Your task to perform on an android device: snooze an email in the gmail app Image 0: 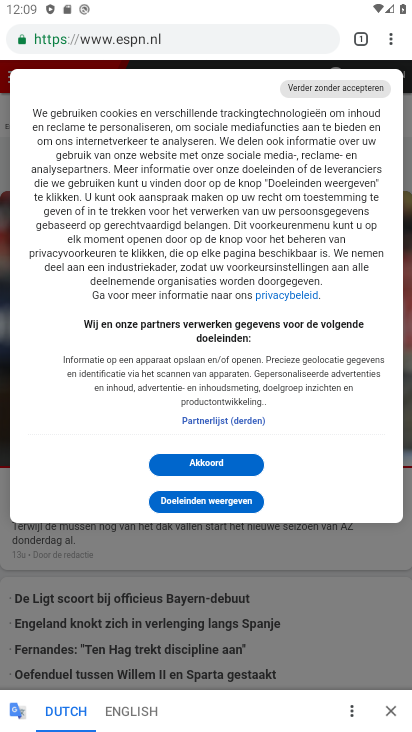
Step 0: press home button
Your task to perform on an android device: snooze an email in the gmail app Image 1: 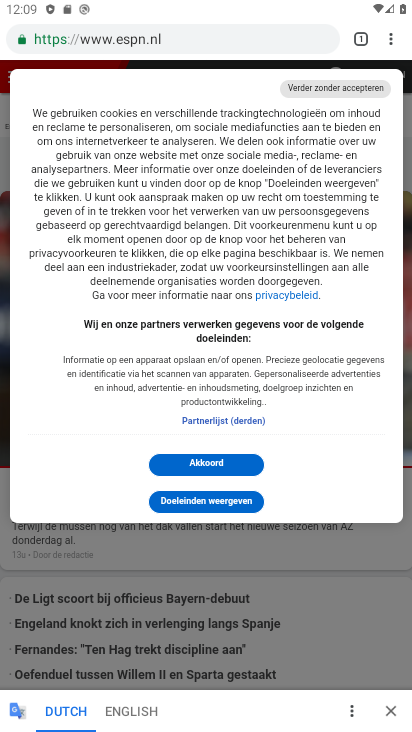
Step 1: press home button
Your task to perform on an android device: snooze an email in the gmail app Image 2: 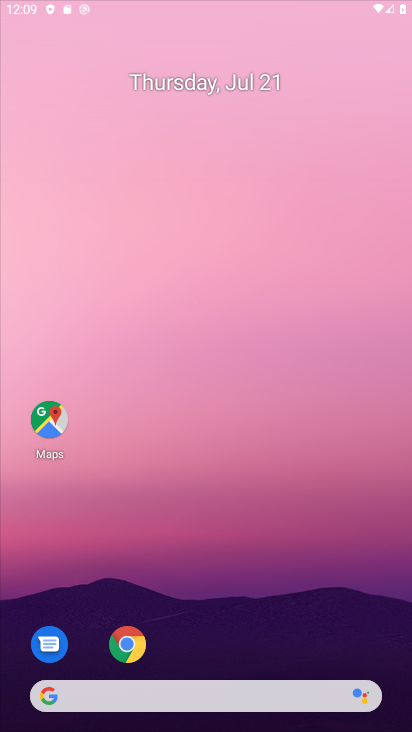
Step 2: press home button
Your task to perform on an android device: snooze an email in the gmail app Image 3: 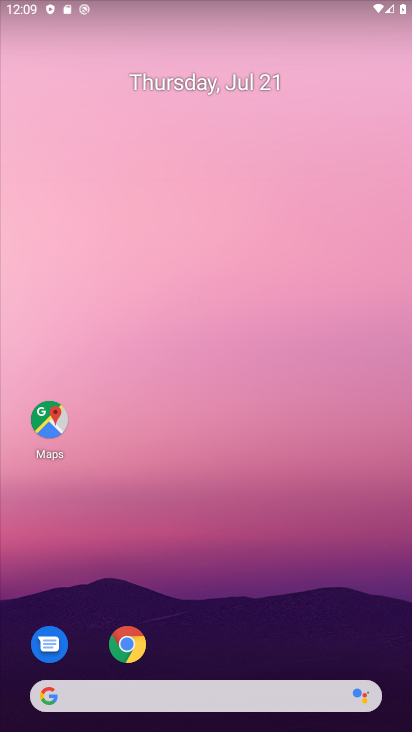
Step 3: press home button
Your task to perform on an android device: snooze an email in the gmail app Image 4: 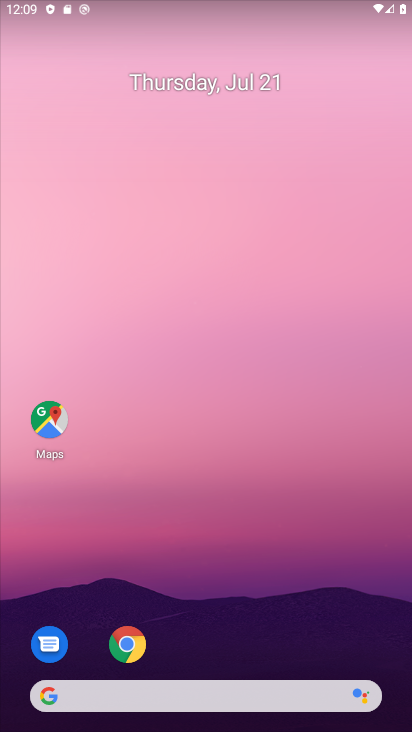
Step 4: drag from (374, 651) to (325, 48)
Your task to perform on an android device: snooze an email in the gmail app Image 5: 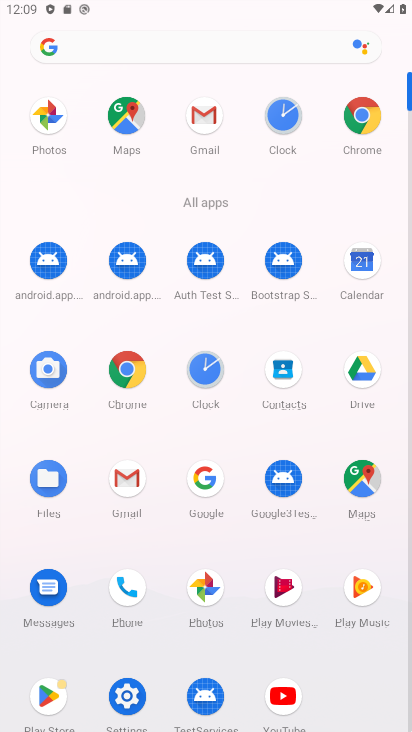
Step 5: click (119, 497)
Your task to perform on an android device: snooze an email in the gmail app Image 6: 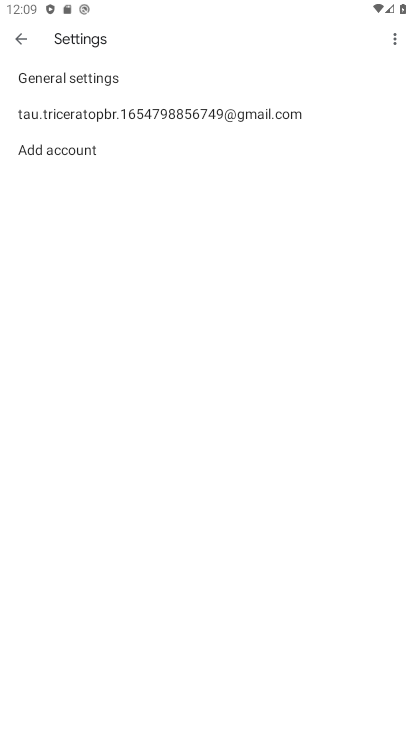
Step 6: click (113, 112)
Your task to perform on an android device: snooze an email in the gmail app Image 7: 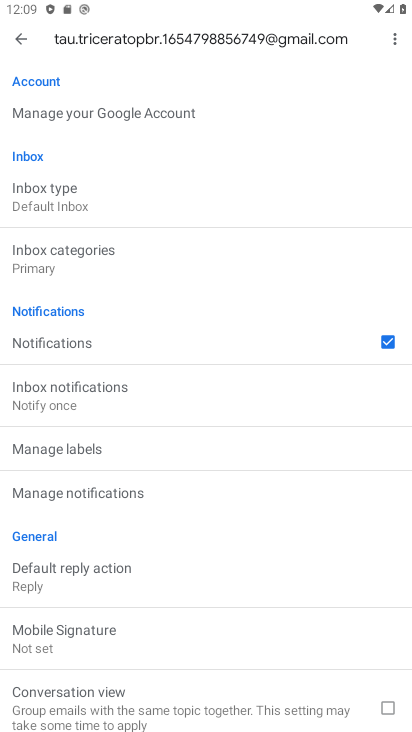
Step 7: click (8, 33)
Your task to perform on an android device: snooze an email in the gmail app Image 8: 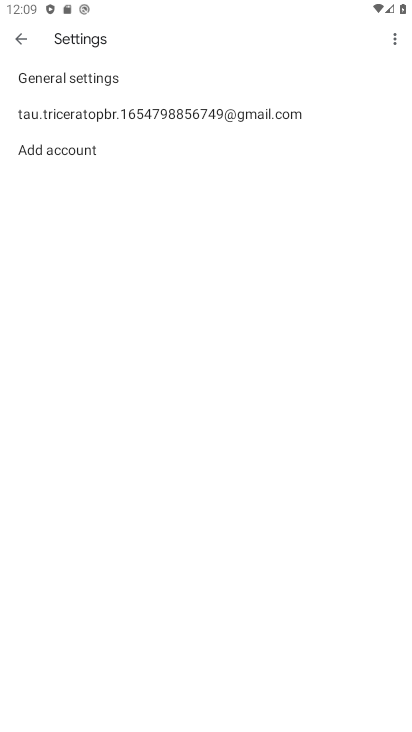
Step 8: click (8, 33)
Your task to perform on an android device: snooze an email in the gmail app Image 9: 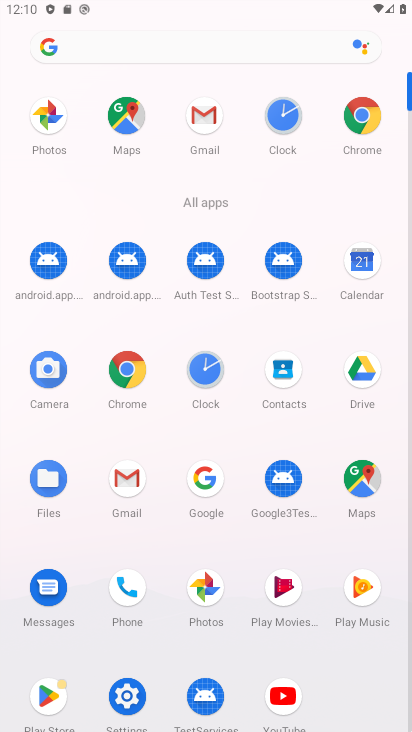
Step 9: click (202, 118)
Your task to perform on an android device: snooze an email in the gmail app Image 10: 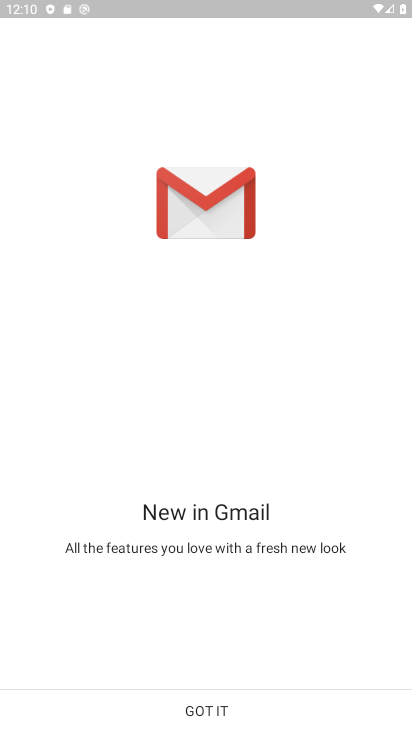
Step 10: click (175, 723)
Your task to perform on an android device: snooze an email in the gmail app Image 11: 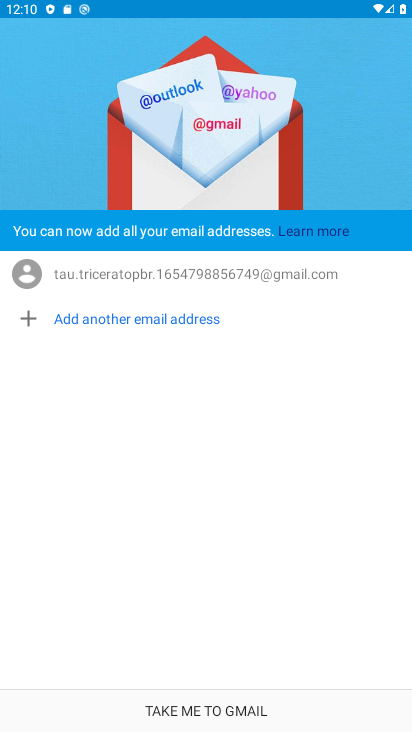
Step 11: click (238, 717)
Your task to perform on an android device: snooze an email in the gmail app Image 12: 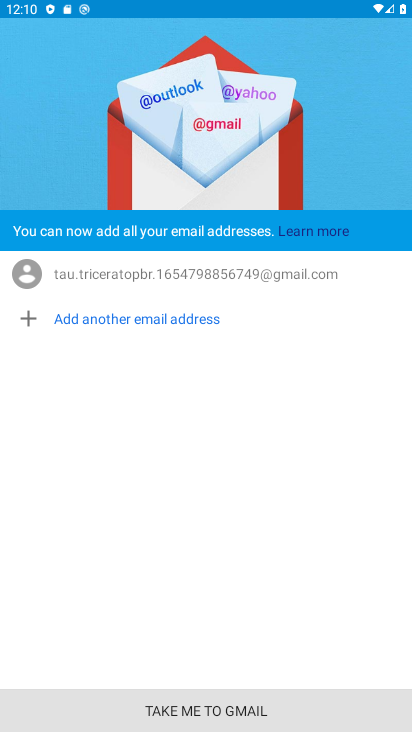
Step 12: click (232, 720)
Your task to perform on an android device: snooze an email in the gmail app Image 13: 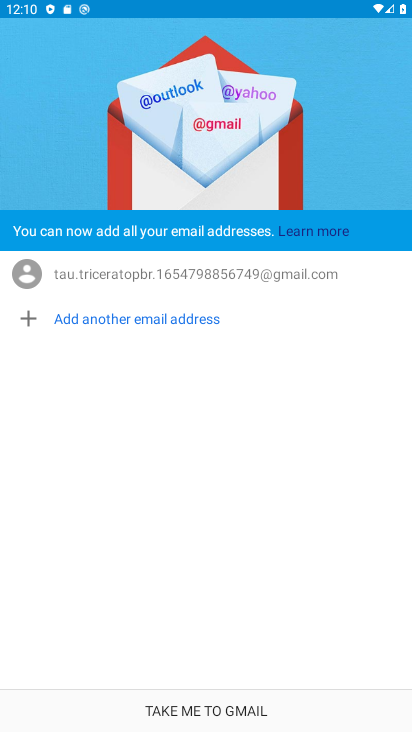
Step 13: click (232, 720)
Your task to perform on an android device: snooze an email in the gmail app Image 14: 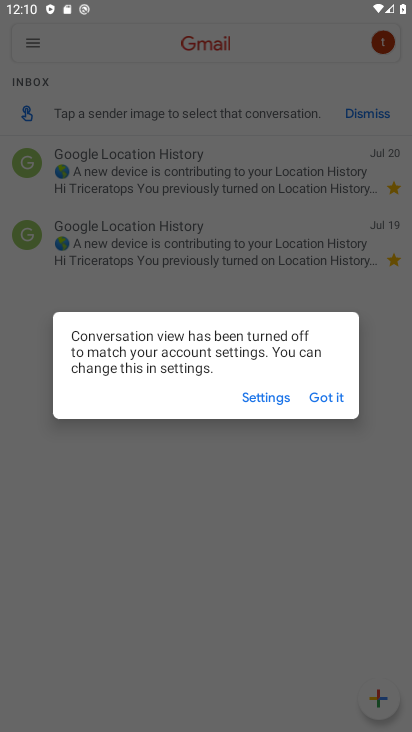
Step 14: click (346, 411)
Your task to perform on an android device: snooze an email in the gmail app Image 15: 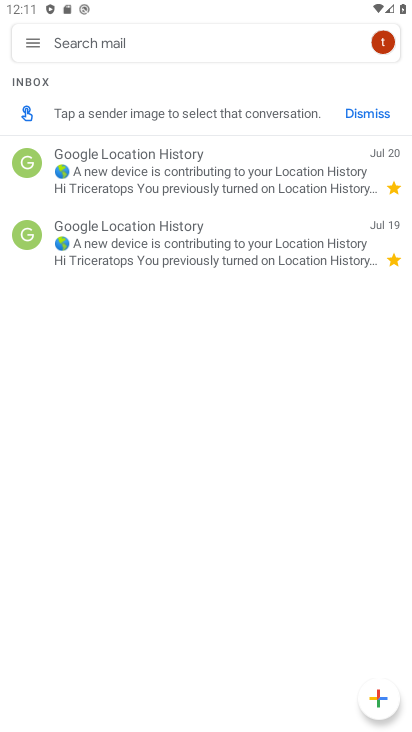
Step 15: click (31, 52)
Your task to perform on an android device: snooze an email in the gmail app Image 16: 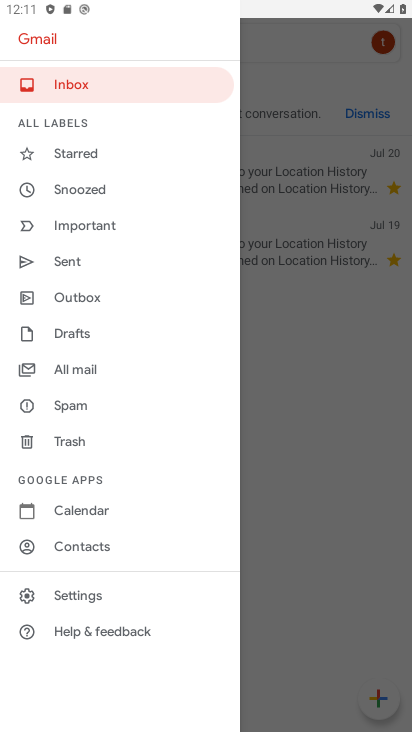
Step 16: click (273, 218)
Your task to perform on an android device: snooze an email in the gmail app Image 17: 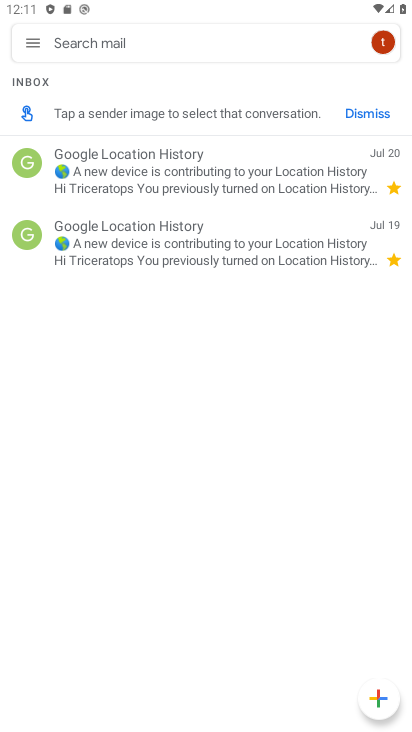
Step 17: task complete